Your task to perform on an android device: Open Google Maps Image 0: 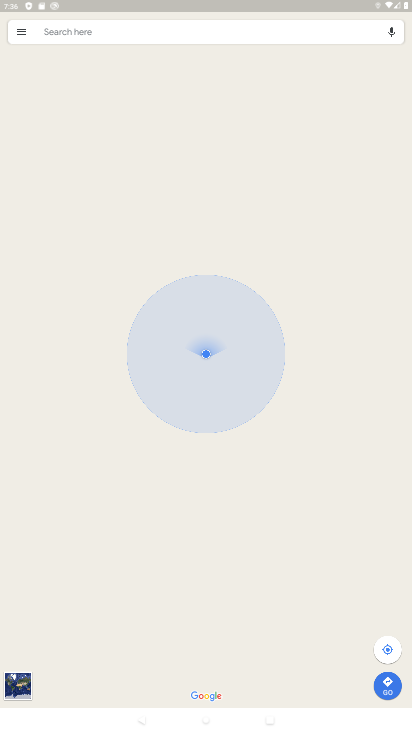
Step 0: task complete